Your task to perform on an android device: What is the recent news? Image 0: 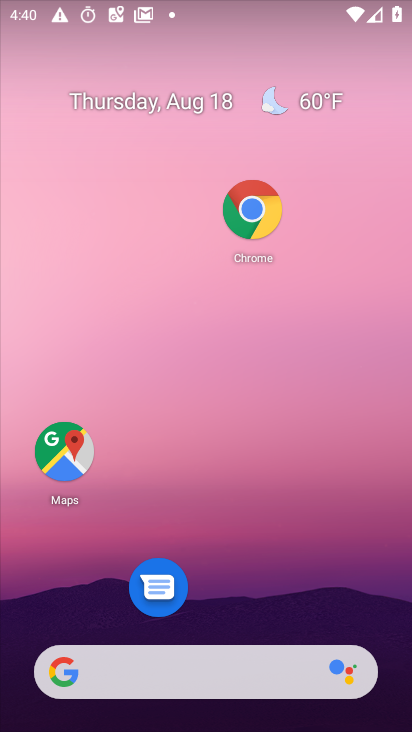
Step 0: drag from (297, 416) to (367, 112)
Your task to perform on an android device: What is the recent news? Image 1: 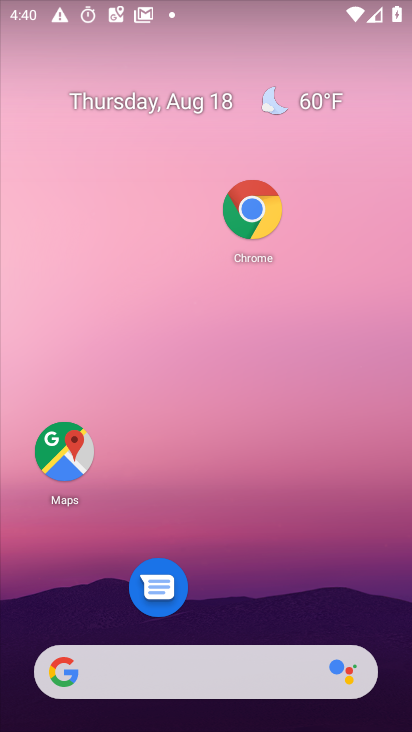
Step 1: drag from (312, 562) to (347, 1)
Your task to perform on an android device: What is the recent news? Image 2: 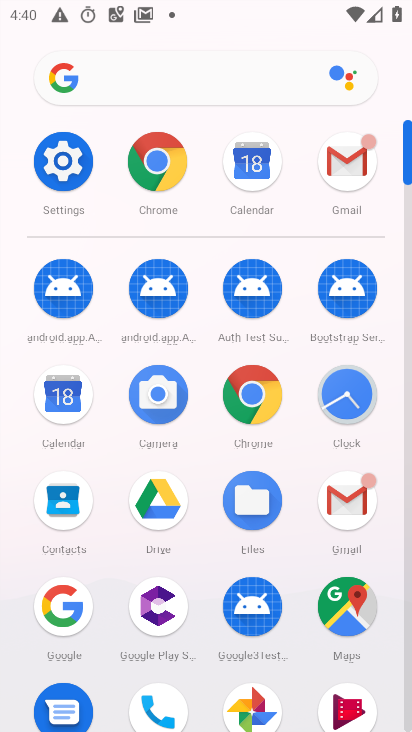
Step 2: click (247, 384)
Your task to perform on an android device: What is the recent news? Image 3: 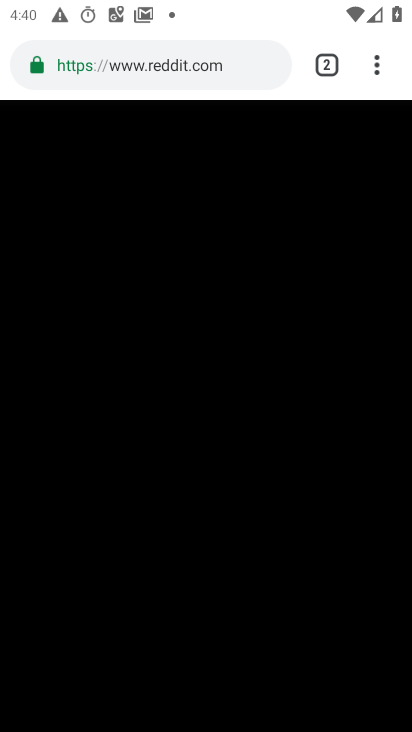
Step 3: click (148, 57)
Your task to perform on an android device: What is the recent news? Image 4: 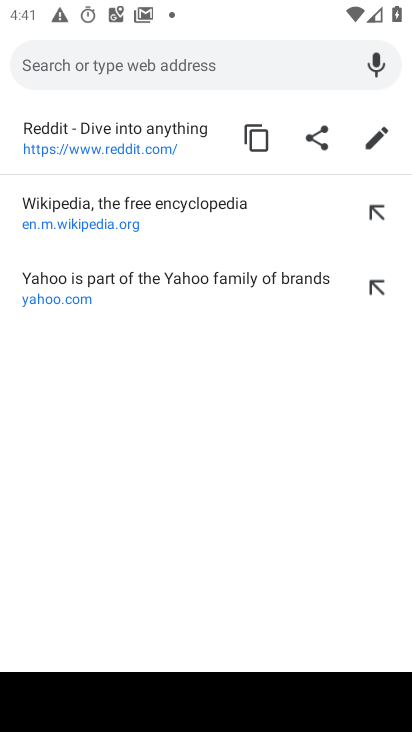
Step 4: type "What is the recent news?"
Your task to perform on an android device: What is the recent news? Image 5: 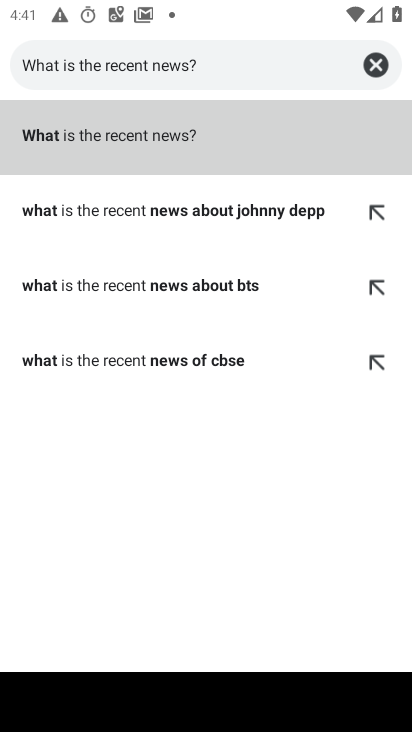
Step 5: click (126, 140)
Your task to perform on an android device: What is the recent news? Image 6: 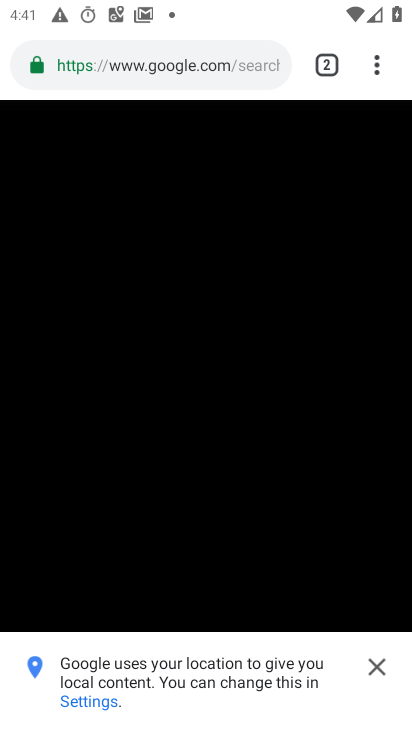
Step 6: task complete